Your task to perform on an android device: Open Yahoo.com Image 0: 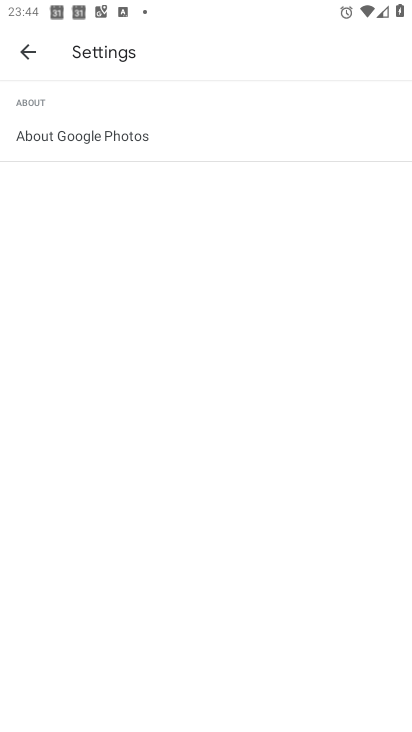
Step 0: press home button
Your task to perform on an android device: Open Yahoo.com Image 1: 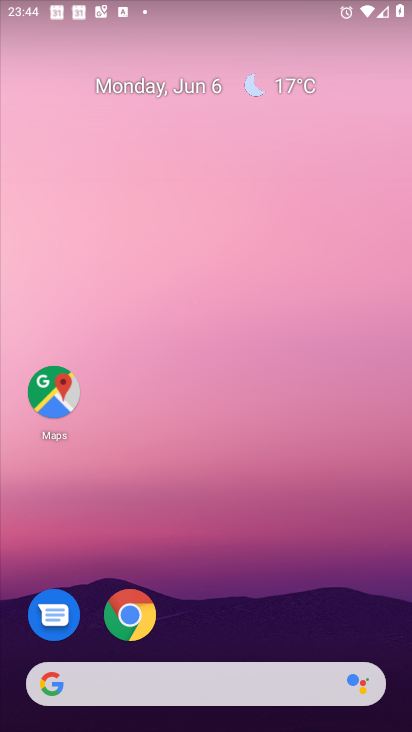
Step 1: click (129, 599)
Your task to perform on an android device: Open Yahoo.com Image 2: 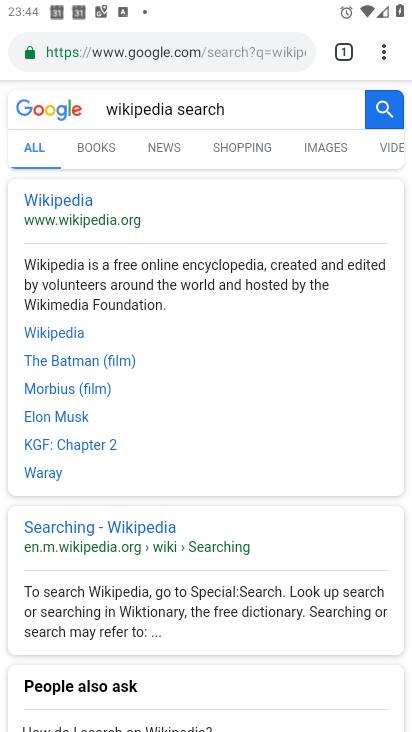
Step 2: click (304, 47)
Your task to perform on an android device: Open Yahoo.com Image 3: 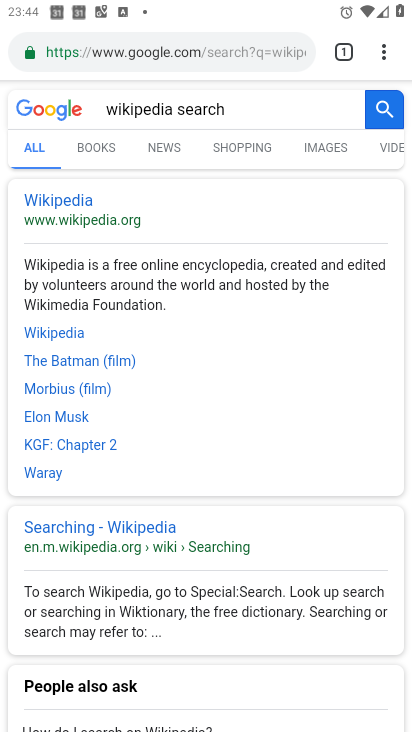
Step 3: click (304, 47)
Your task to perform on an android device: Open Yahoo.com Image 4: 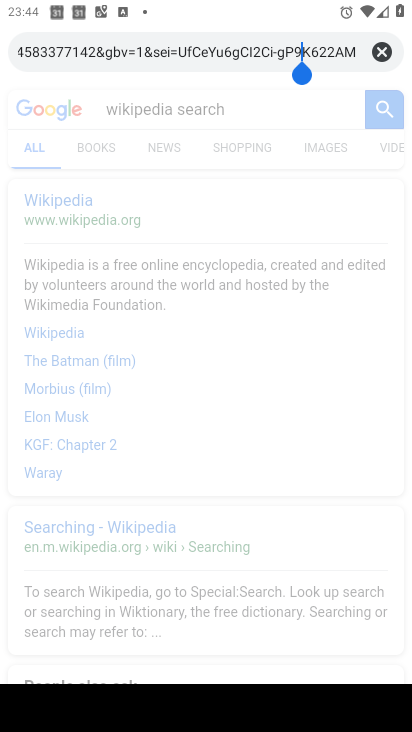
Step 4: click (360, 42)
Your task to perform on an android device: Open Yahoo.com Image 5: 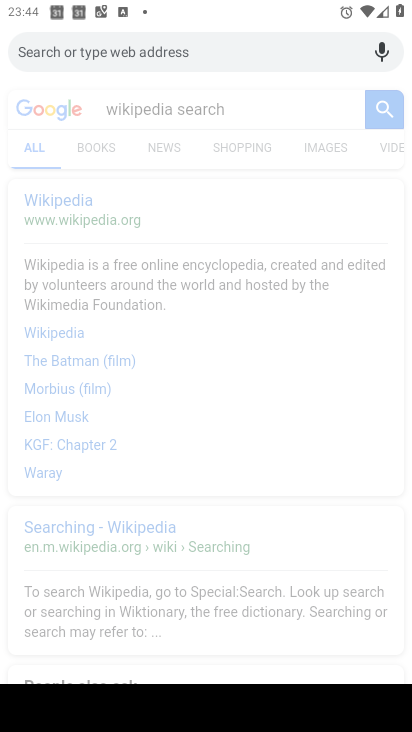
Step 5: click (383, 48)
Your task to perform on an android device: Open Yahoo.com Image 6: 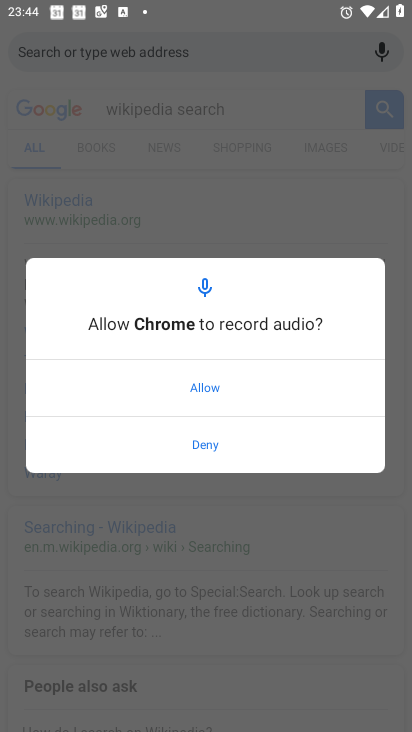
Step 6: click (203, 445)
Your task to perform on an android device: Open Yahoo.com Image 7: 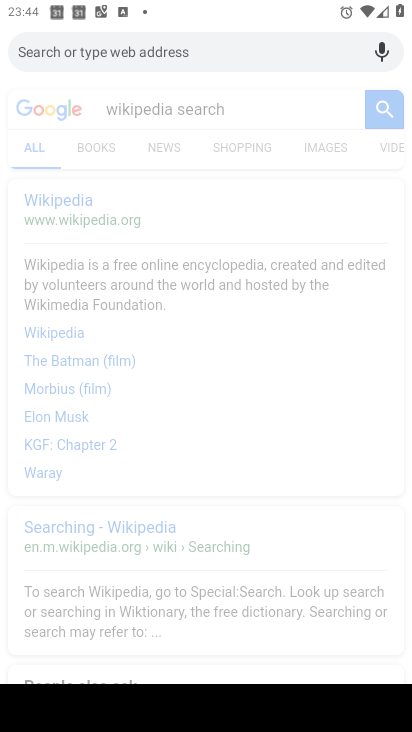
Step 7: type "Yahoo.com"
Your task to perform on an android device: Open Yahoo.com Image 8: 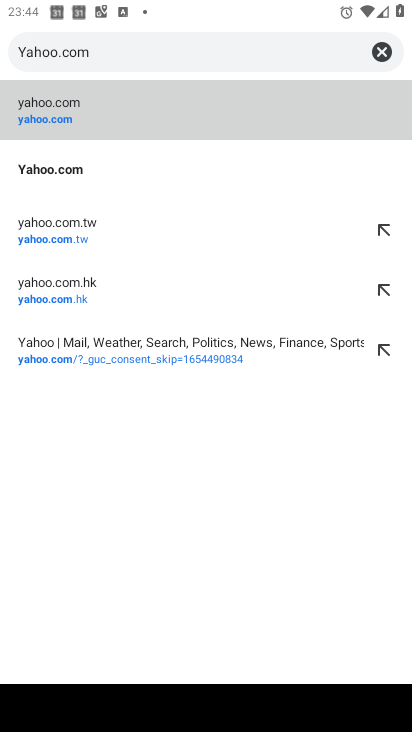
Step 8: click (63, 158)
Your task to perform on an android device: Open Yahoo.com Image 9: 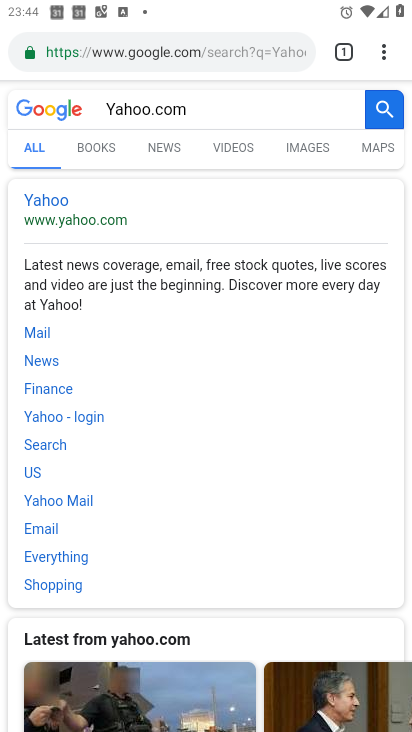
Step 9: task complete